Your task to perform on an android device: Search for pizza restaurants on Maps Image 0: 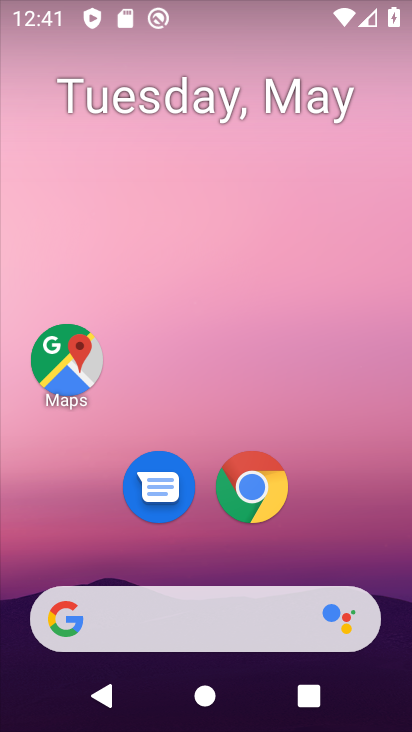
Step 0: click (52, 338)
Your task to perform on an android device: Search for pizza restaurants on Maps Image 1: 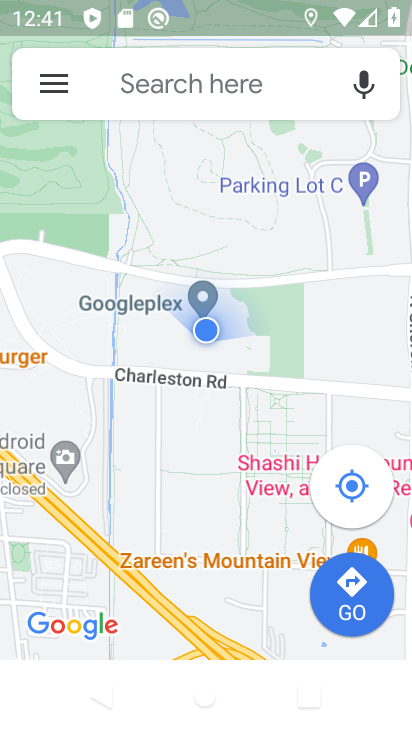
Step 1: click (211, 90)
Your task to perform on an android device: Search for pizza restaurants on Maps Image 2: 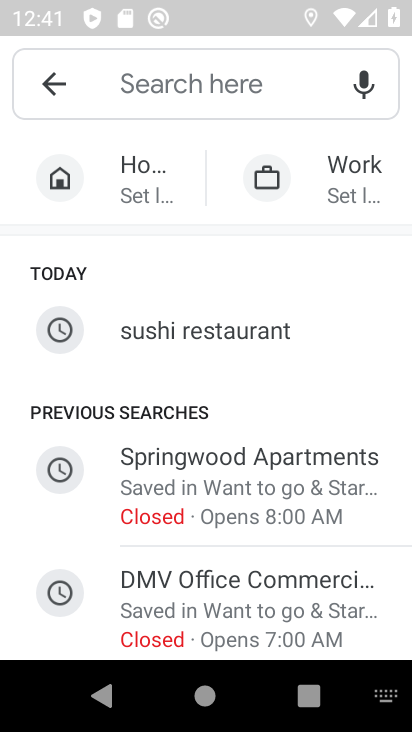
Step 2: type "pizza restaurants"
Your task to perform on an android device: Search for pizza restaurants on Maps Image 3: 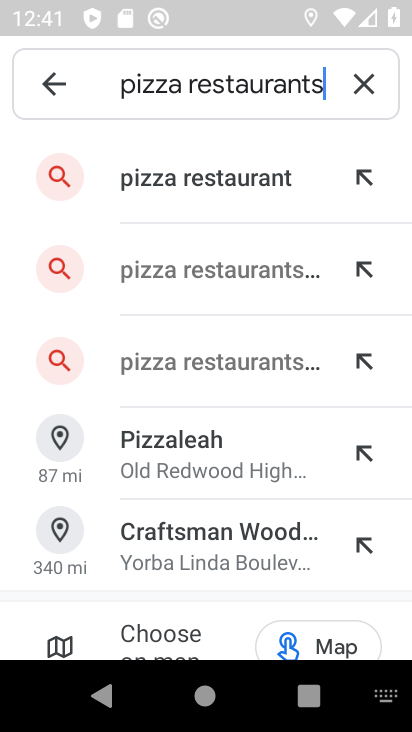
Step 3: click (244, 171)
Your task to perform on an android device: Search for pizza restaurants on Maps Image 4: 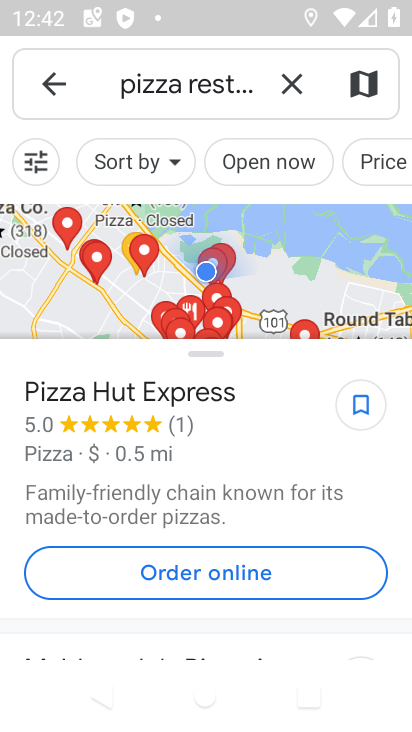
Step 4: task complete